Your task to perform on an android device: Open my contact list Image 0: 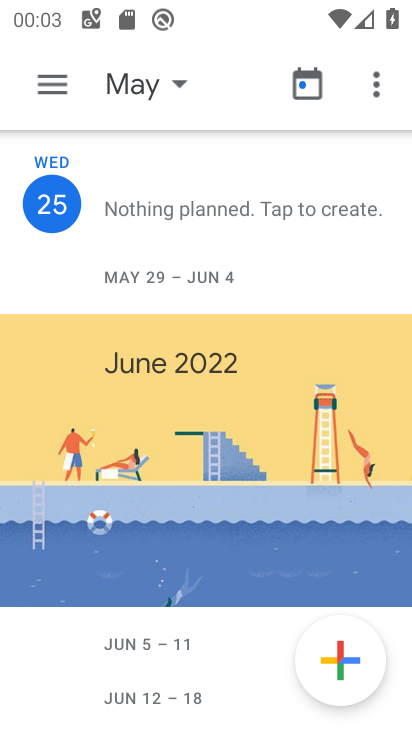
Step 0: press home button
Your task to perform on an android device: Open my contact list Image 1: 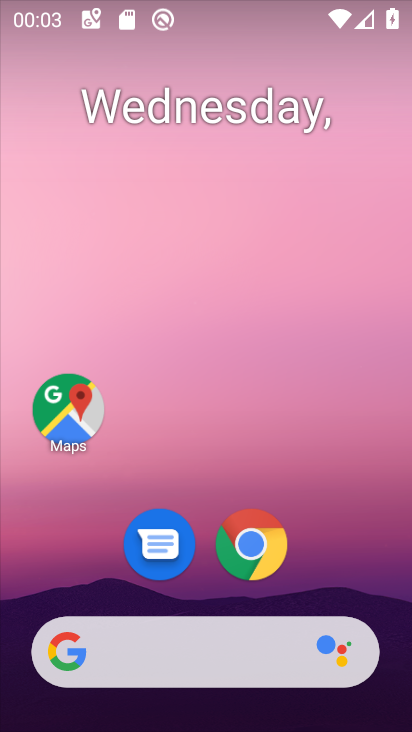
Step 1: drag from (234, 459) to (202, 121)
Your task to perform on an android device: Open my contact list Image 2: 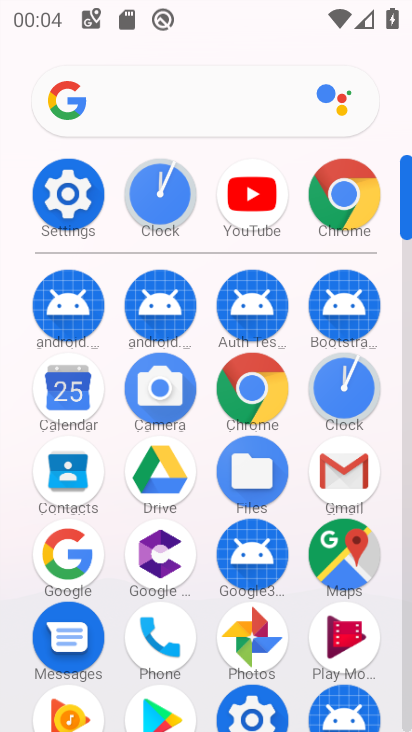
Step 2: drag from (202, 270) to (193, 156)
Your task to perform on an android device: Open my contact list Image 3: 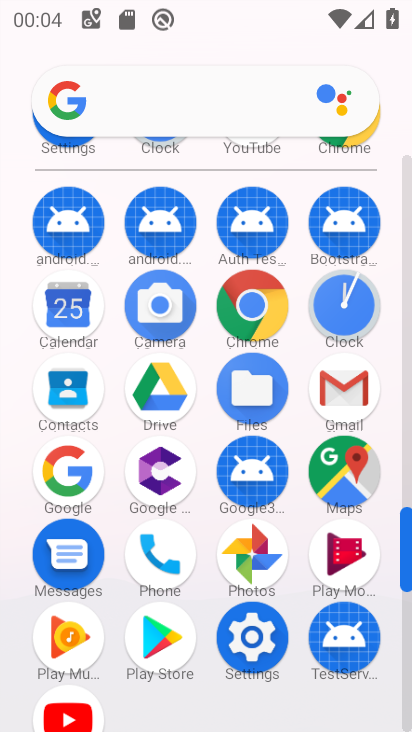
Step 3: click (56, 412)
Your task to perform on an android device: Open my contact list Image 4: 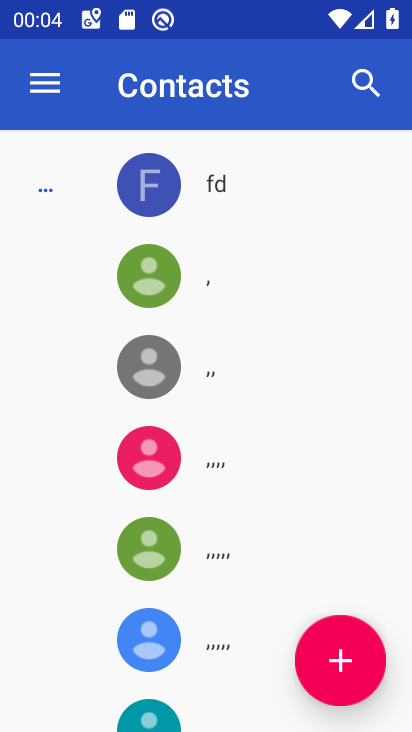
Step 4: task complete